Your task to perform on an android device: set the timer Image 0: 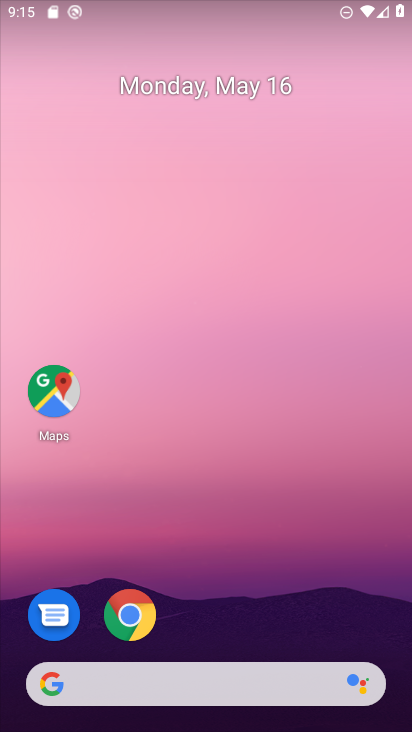
Step 0: drag from (3, 684) to (383, 11)
Your task to perform on an android device: set the timer Image 1: 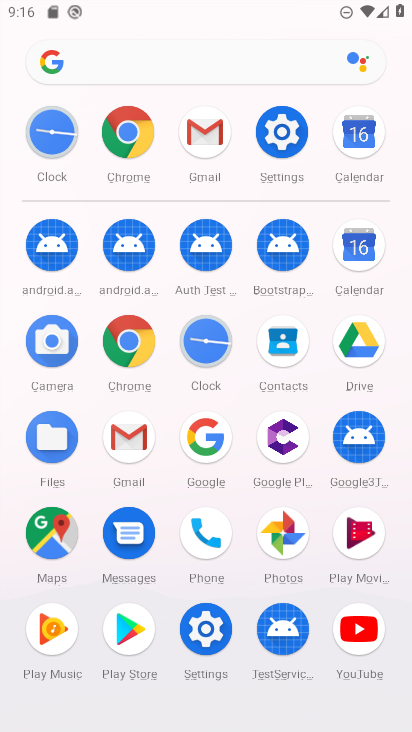
Step 1: click (203, 347)
Your task to perform on an android device: set the timer Image 2: 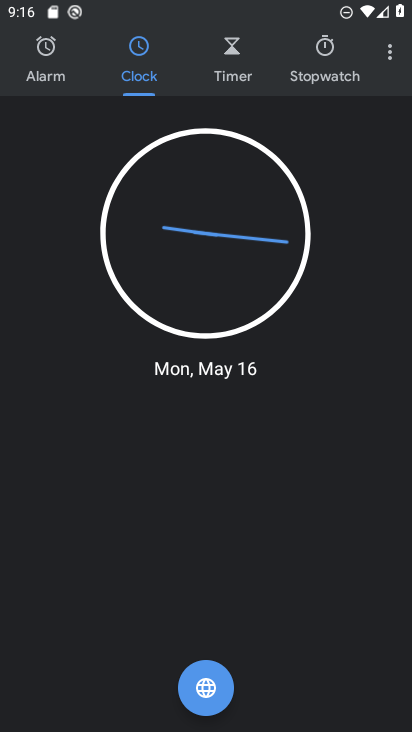
Step 2: click (224, 52)
Your task to perform on an android device: set the timer Image 3: 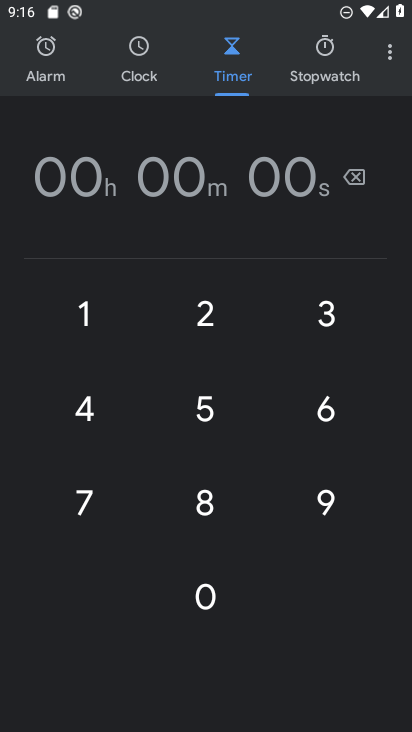
Step 3: click (196, 592)
Your task to perform on an android device: set the timer Image 4: 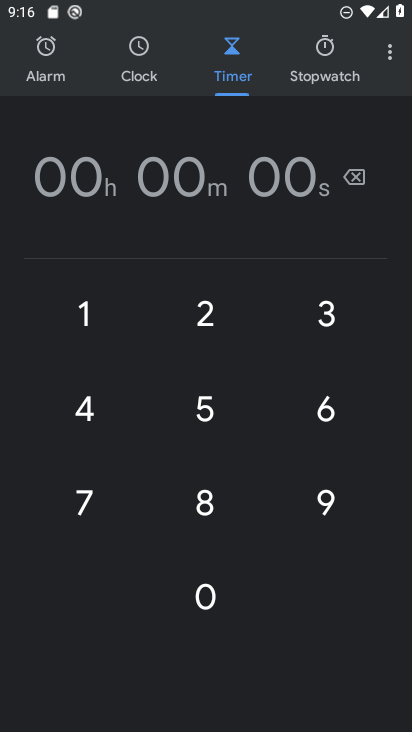
Step 4: click (87, 325)
Your task to perform on an android device: set the timer Image 5: 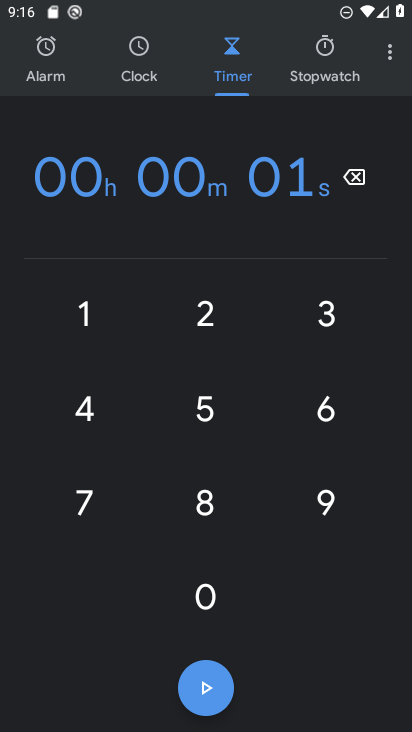
Step 5: click (75, 314)
Your task to perform on an android device: set the timer Image 6: 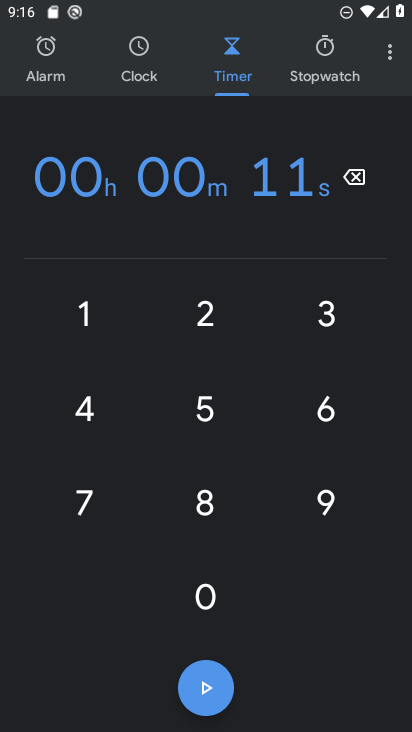
Step 6: click (191, 607)
Your task to perform on an android device: set the timer Image 7: 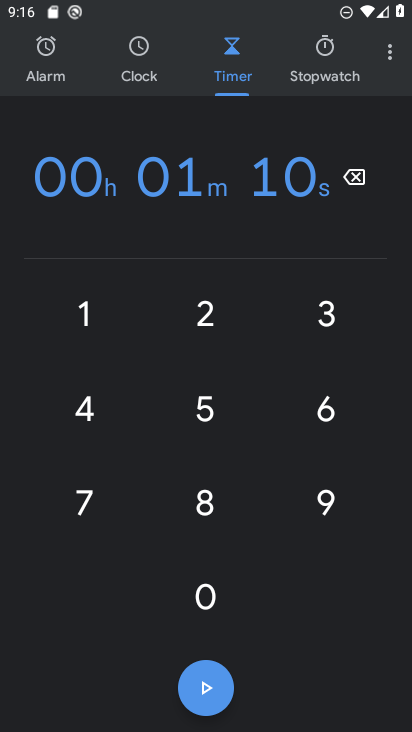
Step 7: click (195, 606)
Your task to perform on an android device: set the timer Image 8: 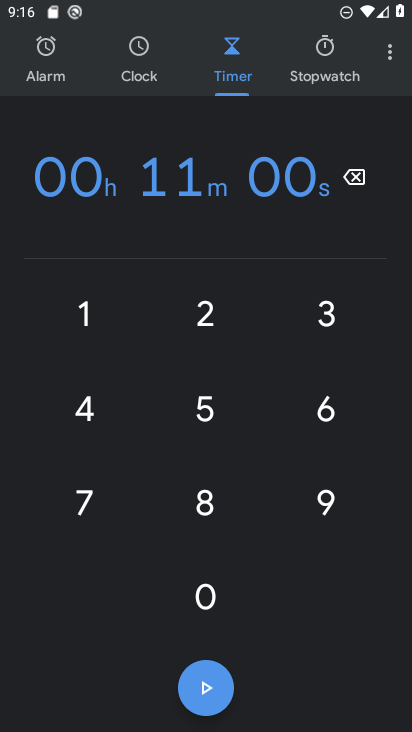
Step 8: click (195, 606)
Your task to perform on an android device: set the timer Image 9: 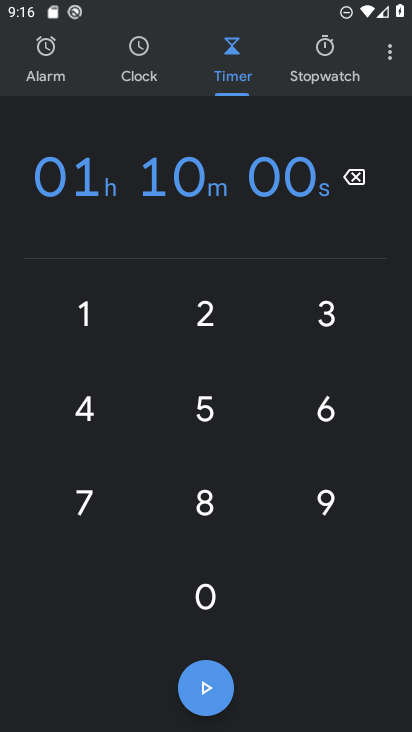
Step 9: click (240, 675)
Your task to perform on an android device: set the timer Image 10: 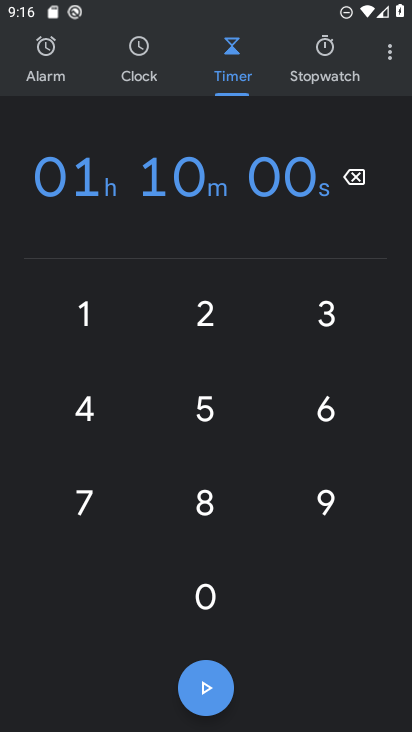
Step 10: click (194, 701)
Your task to perform on an android device: set the timer Image 11: 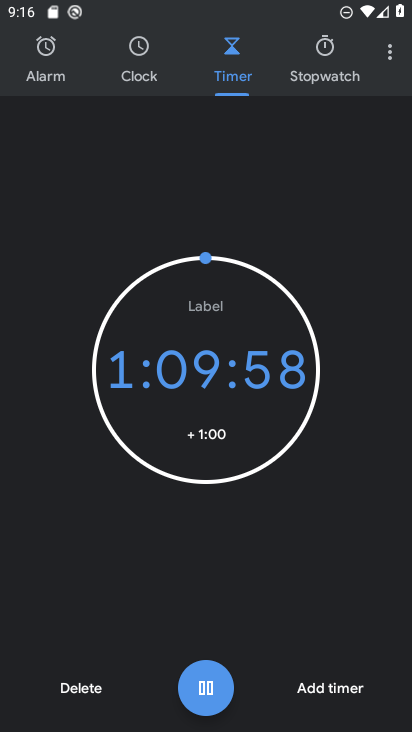
Step 11: task complete